Your task to perform on an android device: open chrome and create a bookmark for the current page Image 0: 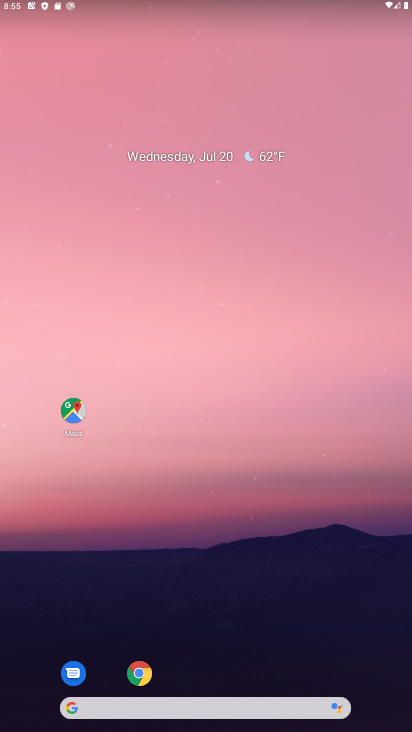
Step 0: click (135, 671)
Your task to perform on an android device: open chrome and create a bookmark for the current page Image 1: 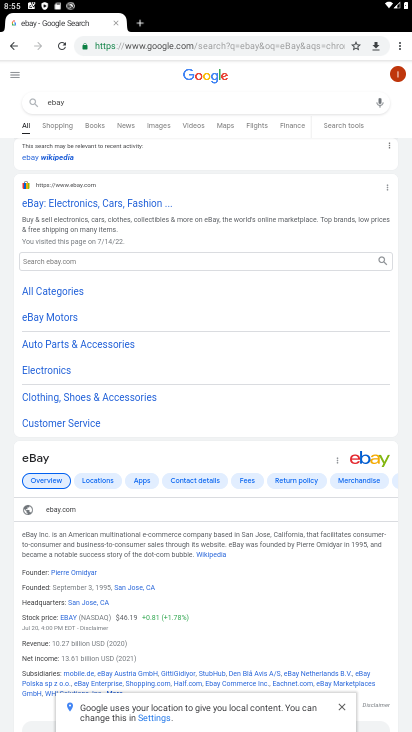
Step 1: click (354, 43)
Your task to perform on an android device: open chrome and create a bookmark for the current page Image 2: 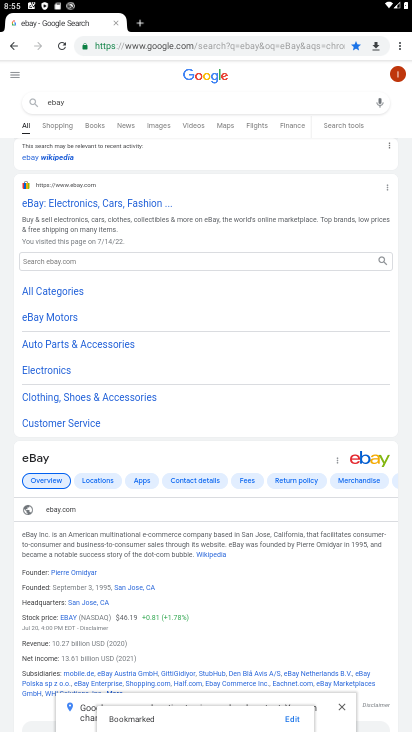
Step 2: task complete